Your task to perform on an android device: set the stopwatch Image 0: 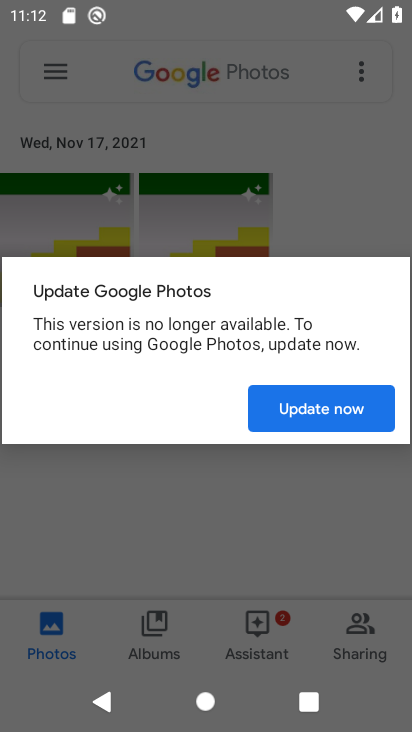
Step 0: press home button
Your task to perform on an android device: set the stopwatch Image 1: 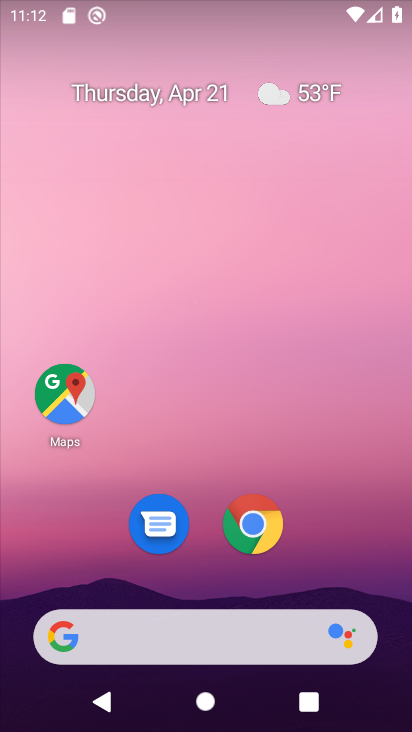
Step 1: drag from (336, 521) to (320, 72)
Your task to perform on an android device: set the stopwatch Image 2: 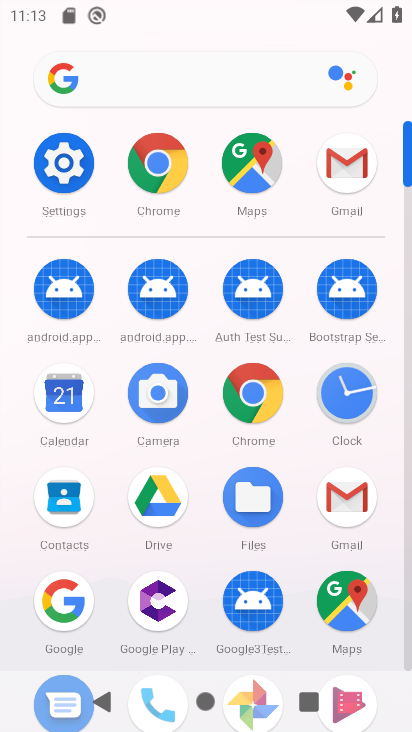
Step 2: click (343, 398)
Your task to perform on an android device: set the stopwatch Image 3: 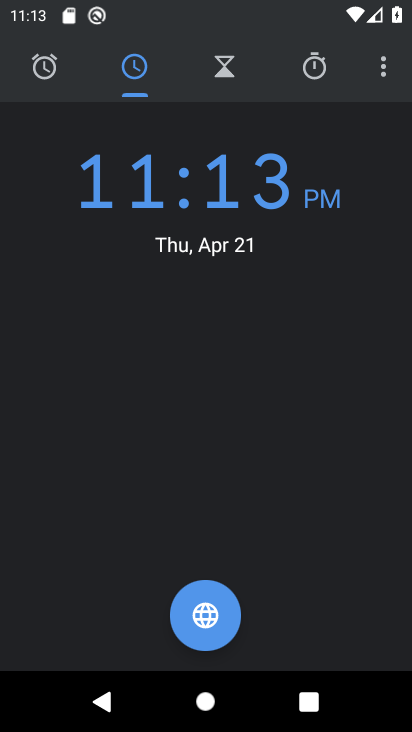
Step 3: click (315, 66)
Your task to perform on an android device: set the stopwatch Image 4: 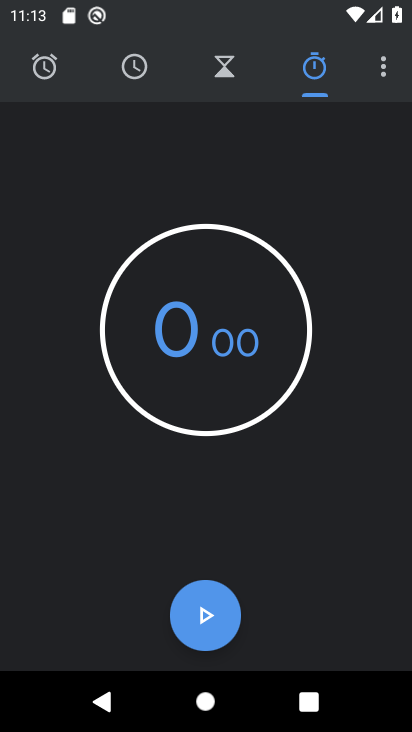
Step 4: click (228, 314)
Your task to perform on an android device: set the stopwatch Image 5: 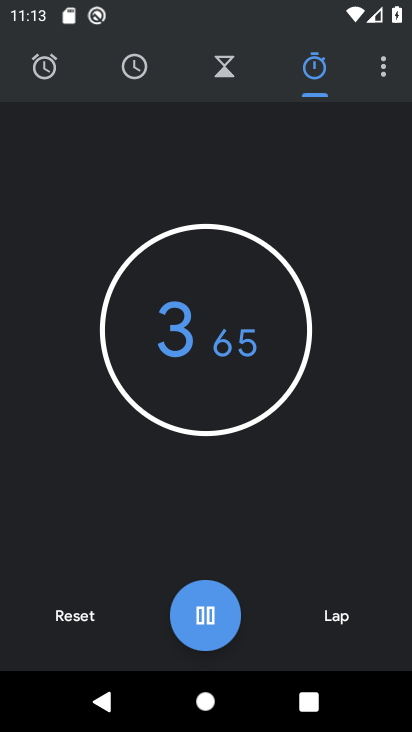
Step 5: click (210, 607)
Your task to perform on an android device: set the stopwatch Image 6: 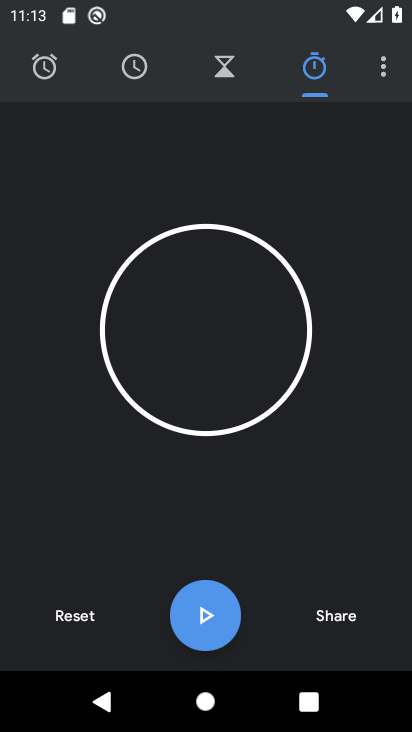
Step 6: task complete